Your task to perform on an android device: Open calendar and show me the fourth week of next month Image 0: 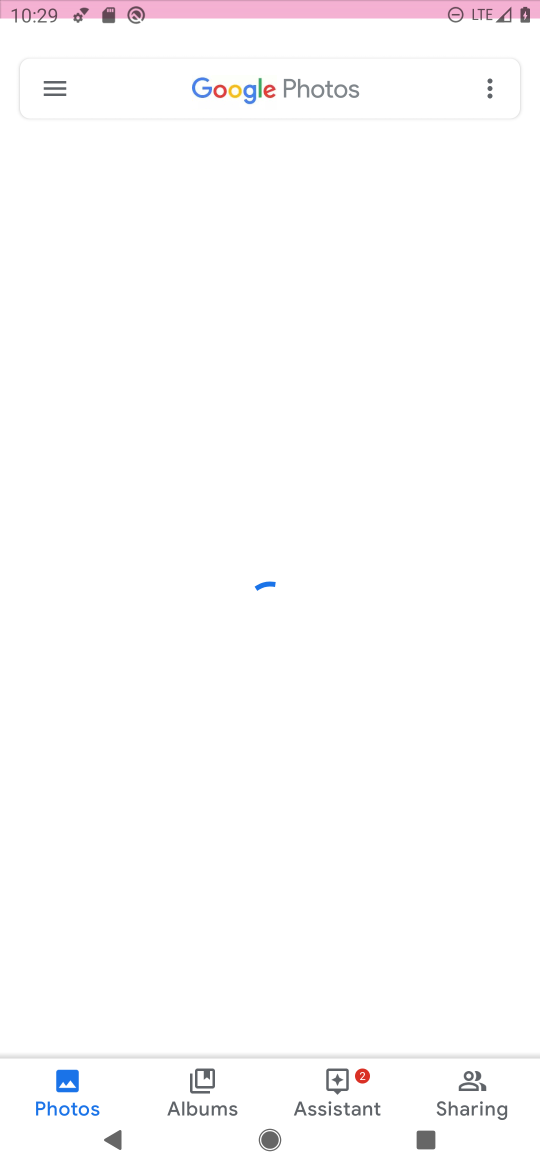
Step 0: press home button
Your task to perform on an android device: Open calendar and show me the fourth week of next month Image 1: 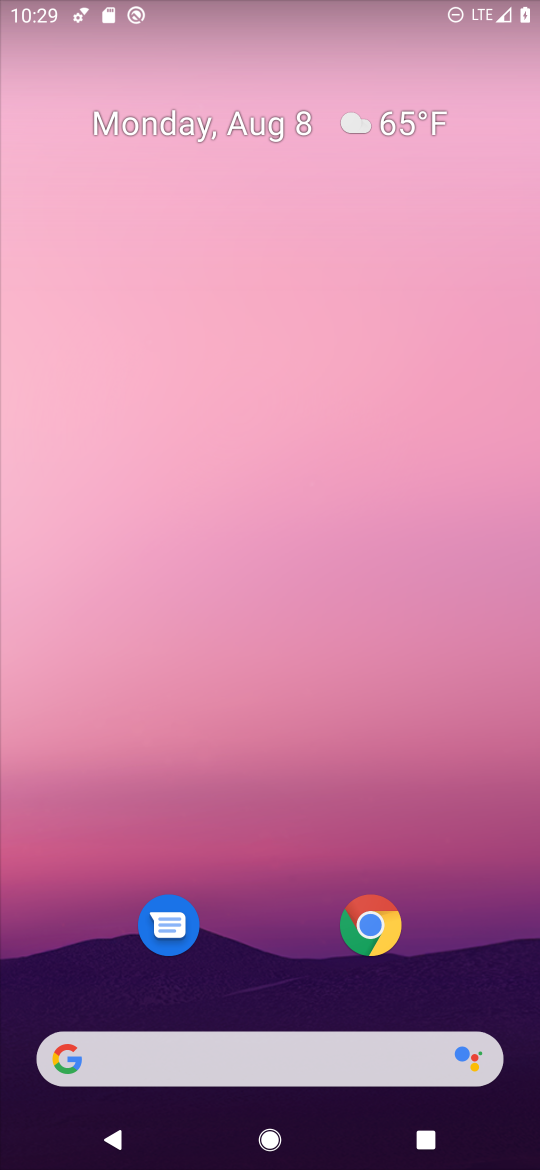
Step 1: drag from (302, 909) to (390, 216)
Your task to perform on an android device: Open calendar and show me the fourth week of next month Image 2: 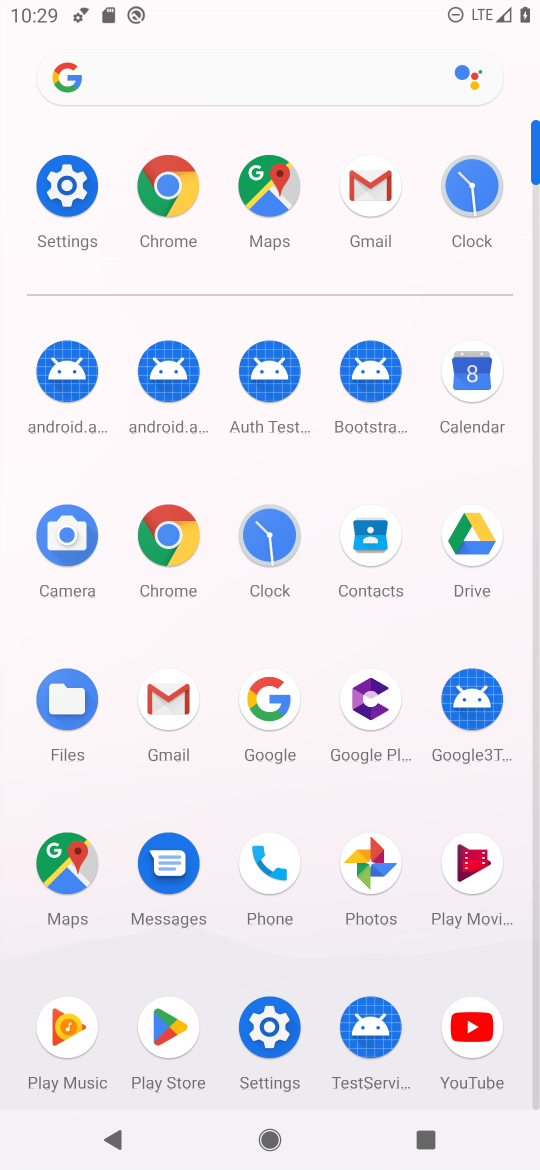
Step 2: click (481, 356)
Your task to perform on an android device: Open calendar and show me the fourth week of next month Image 3: 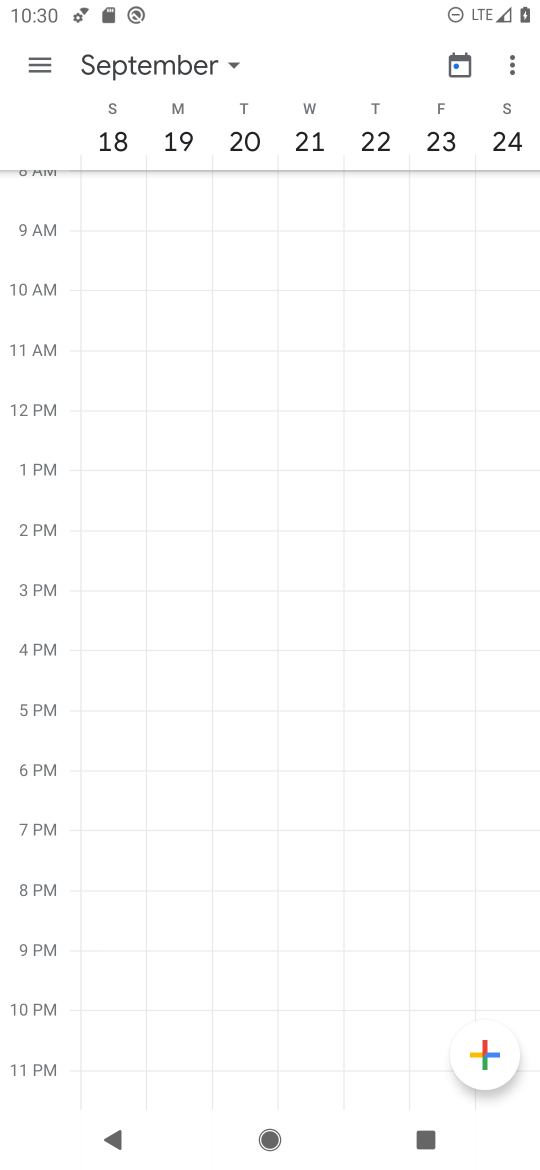
Step 3: click (191, 117)
Your task to perform on an android device: Open calendar and show me the fourth week of next month Image 4: 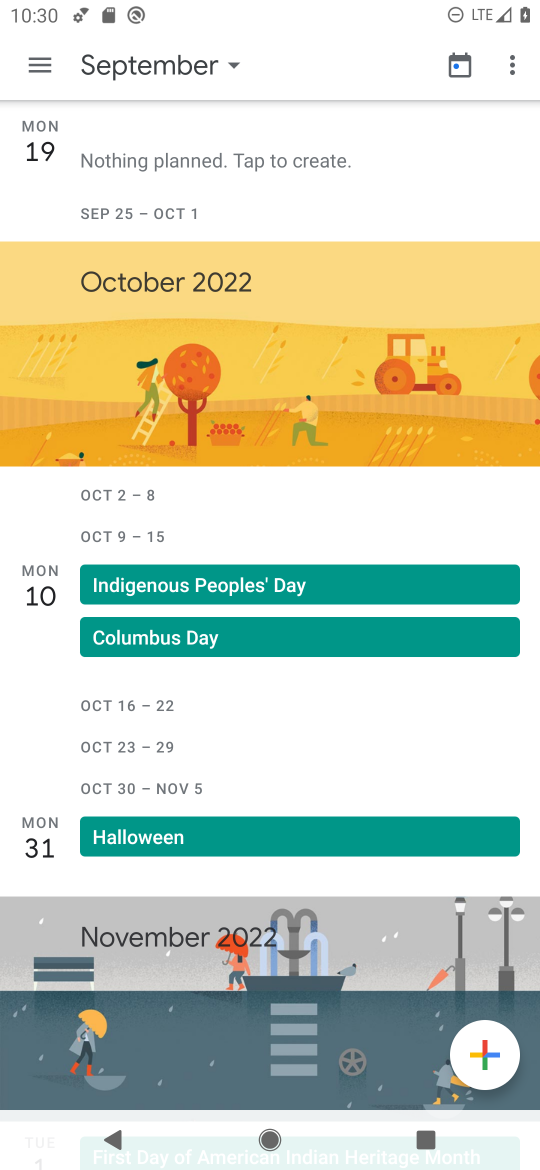
Step 4: click (182, 67)
Your task to perform on an android device: Open calendar and show me the fourth week of next month Image 5: 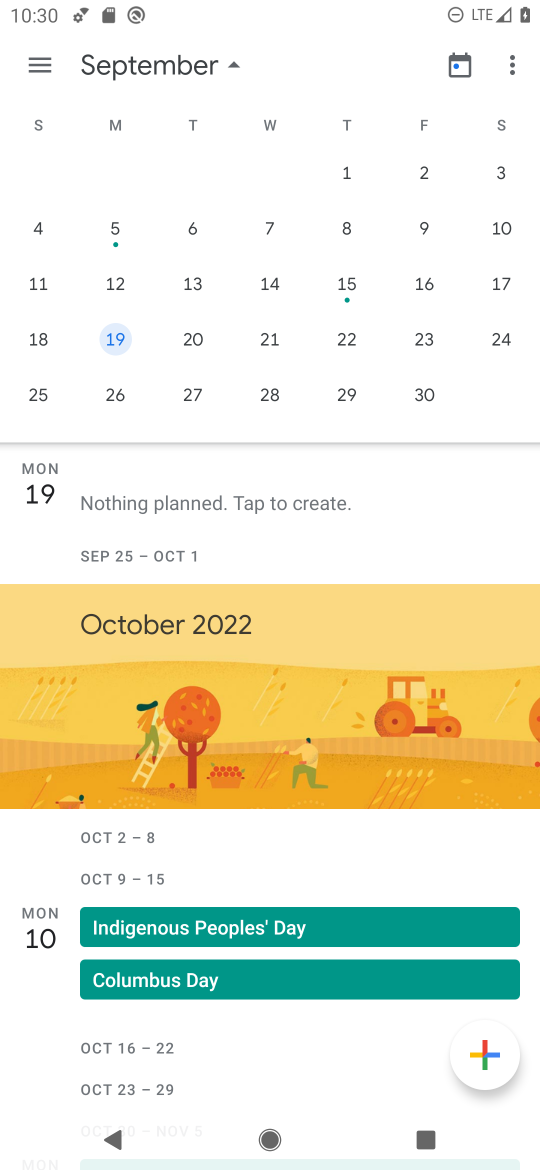
Step 5: click (189, 381)
Your task to perform on an android device: Open calendar and show me the fourth week of next month Image 6: 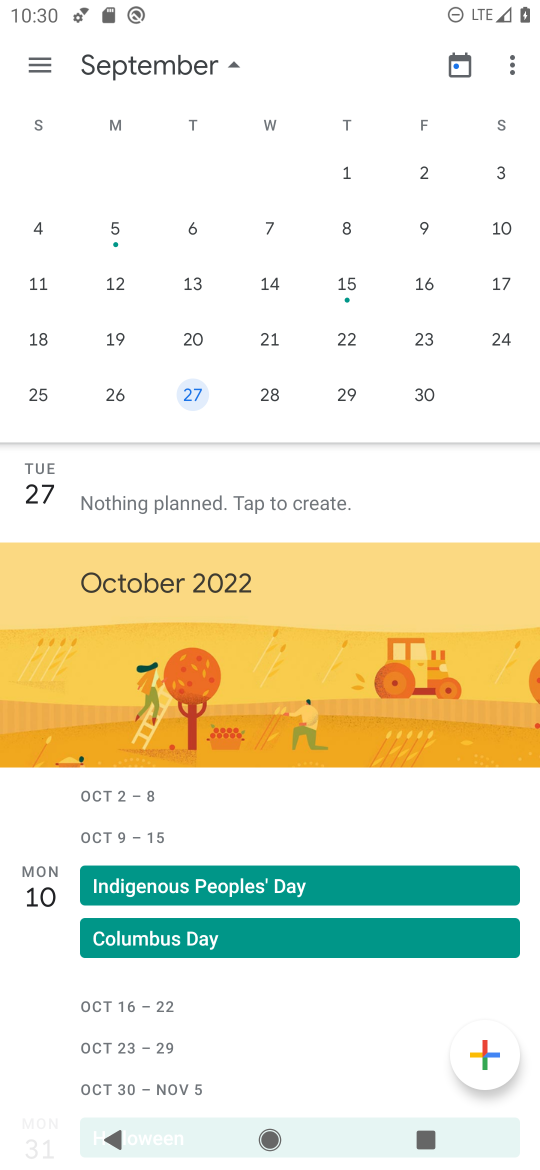
Step 6: click (32, 52)
Your task to perform on an android device: Open calendar and show me the fourth week of next month Image 7: 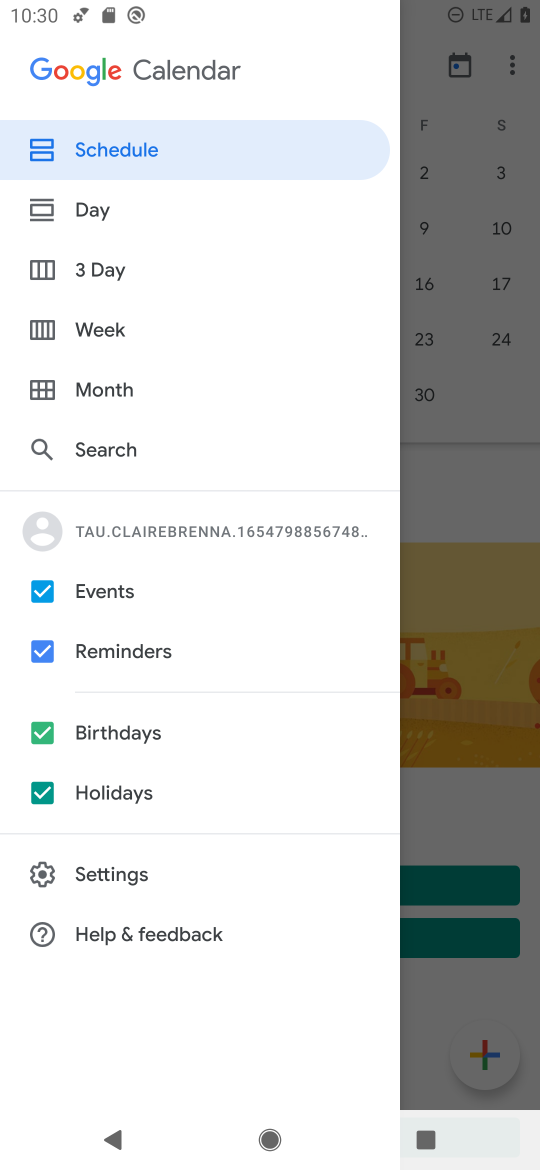
Step 7: click (108, 319)
Your task to perform on an android device: Open calendar and show me the fourth week of next month Image 8: 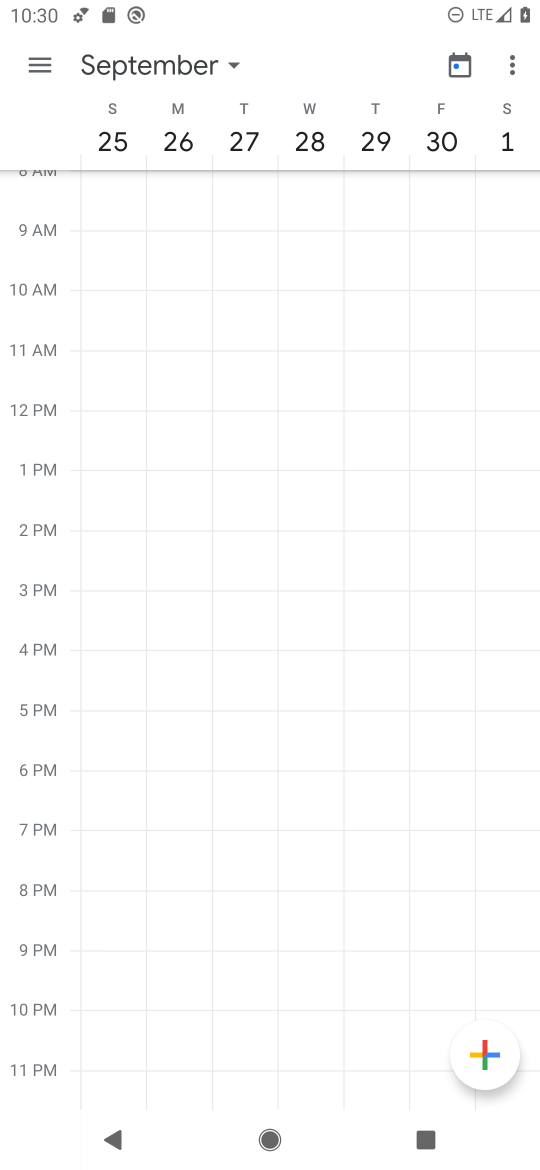
Step 8: task complete